Your task to perform on an android device: turn off priority inbox in the gmail app Image 0: 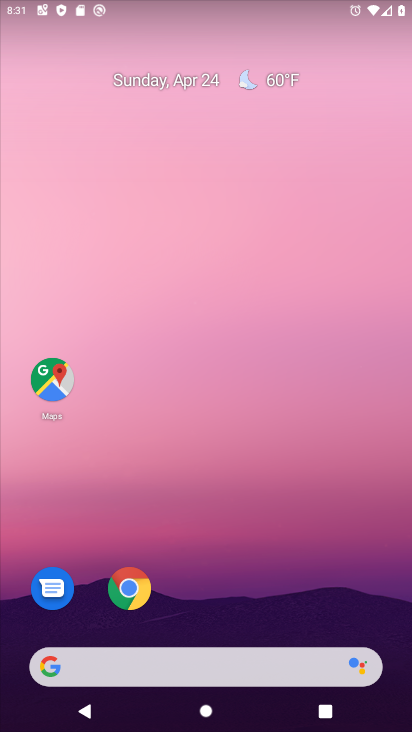
Step 0: drag from (231, 554) to (177, 62)
Your task to perform on an android device: turn off priority inbox in the gmail app Image 1: 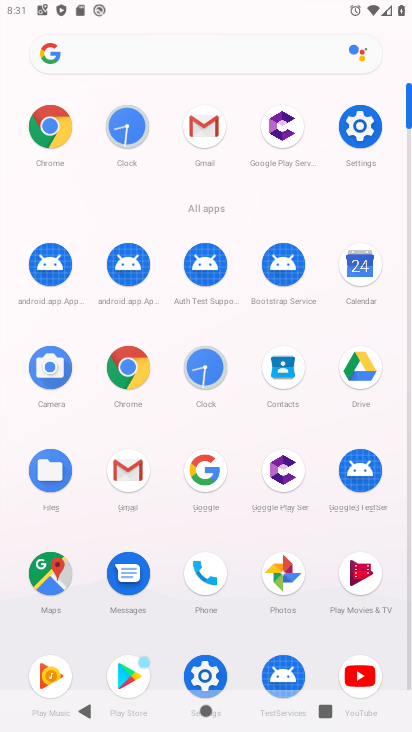
Step 1: click (203, 127)
Your task to perform on an android device: turn off priority inbox in the gmail app Image 2: 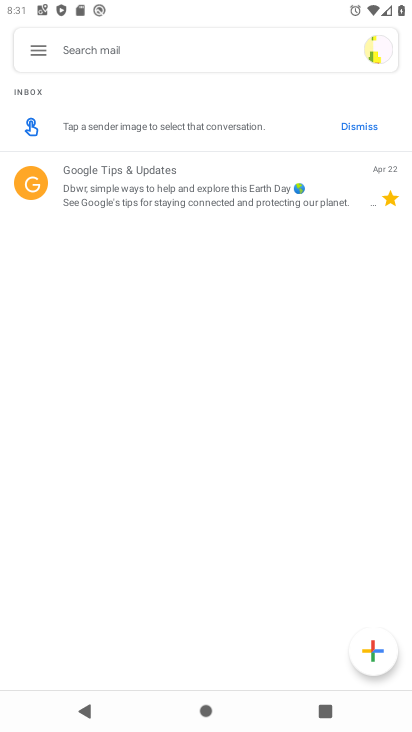
Step 2: click (34, 54)
Your task to perform on an android device: turn off priority inbox in the gmail app Image 3: 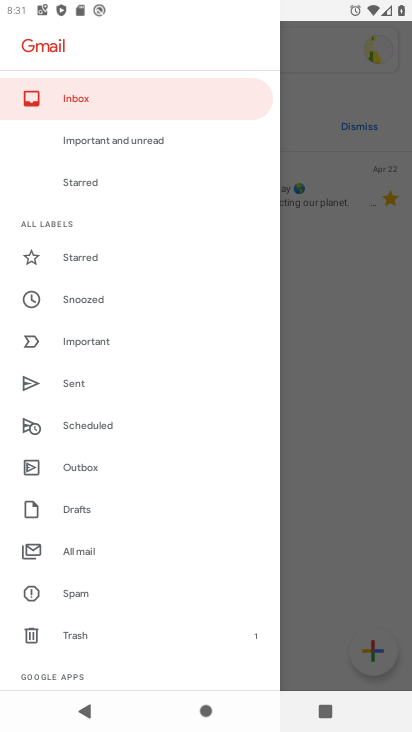
Step 3: drag from (122, 454) to (145, 387)
Your task to perform on an android device: turn off priority inbox in the gmail app Image 4: 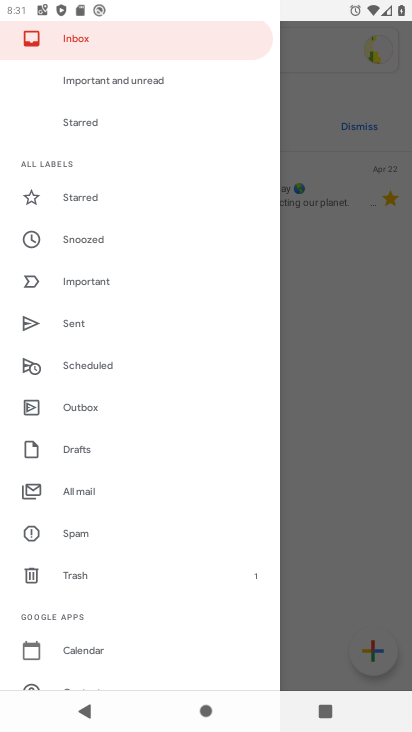
Step 4: drag from (141, 540) to (158, 438)
Your task to perform on an android device: turn off priority inbox in the gmail app Image 5: 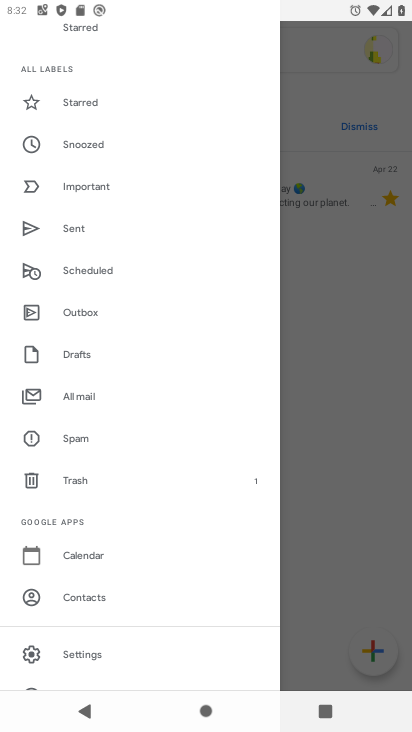
Step 5: click (88, 651)
Your task to perform on an android device: turn off priority inbox in the gmail app Image 6: 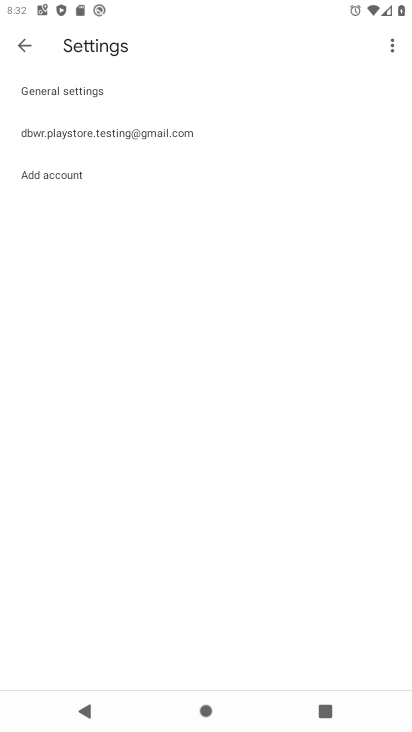
Step 6: click (110, 137)
Your task to perform on an android device: turn off priority inbox in the gmail app Image 7: 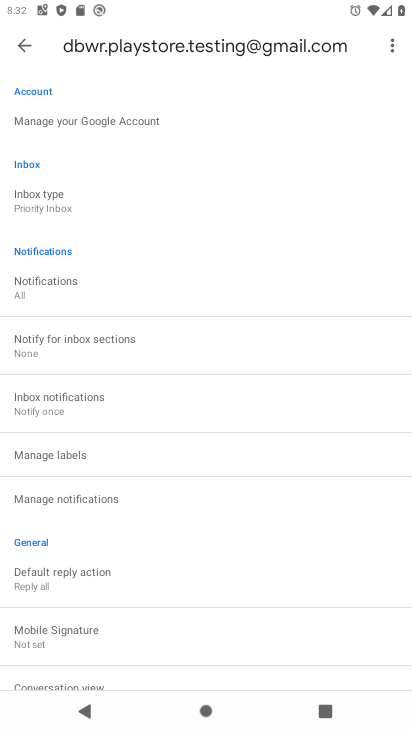
Step 7: click (51, 208)
Your task to perform on an android device: turn off priority inbox in the gmail app Image 8: 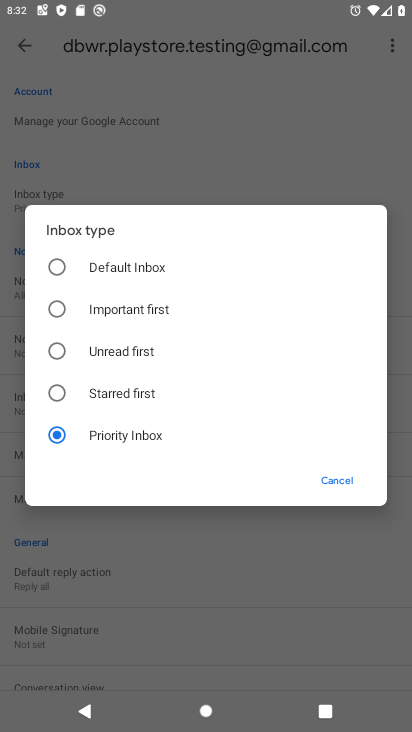
Step 8: click (67, 266)
Your task to perform on an android device: turn off priority inbox in the gmail app Image 9: 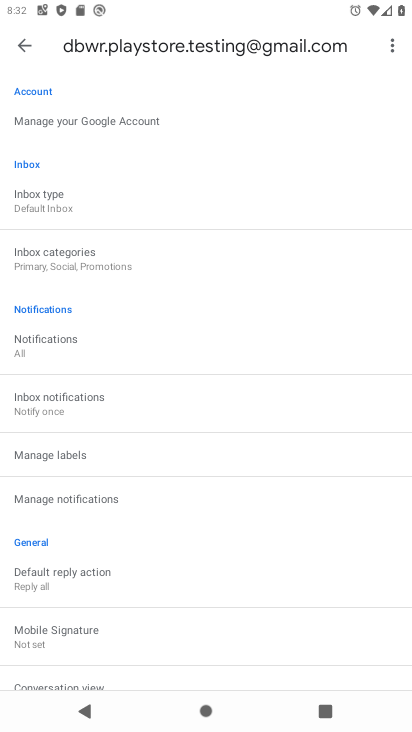
Step 9: task complete